Your task to perform on an android device: refresh tabs in the chrome app Image 0: 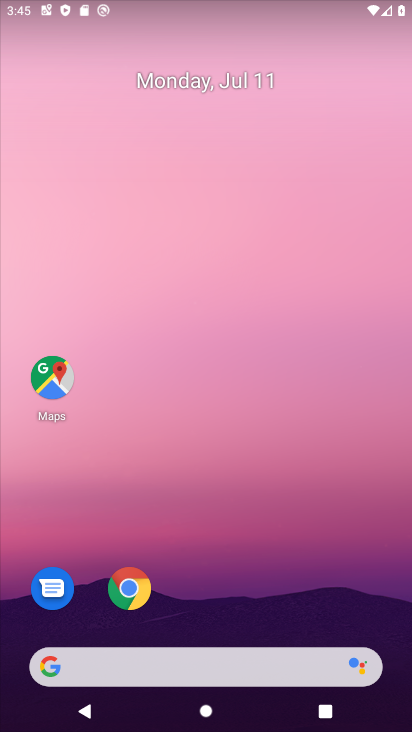
Step 0: press home button
Your task to perform on an android device: refresh tabs in the chrome app Image 1: 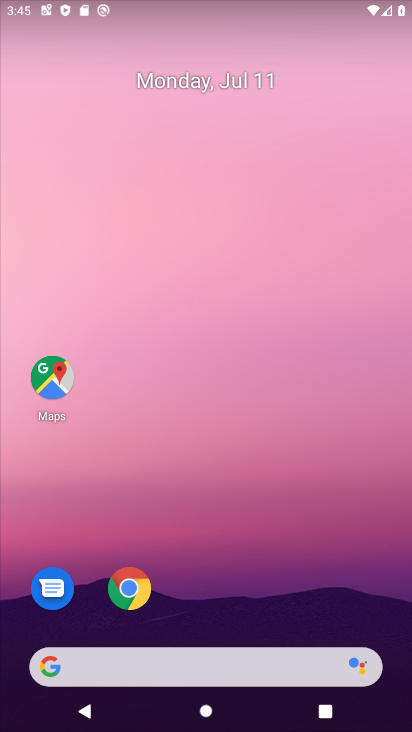
Step 1: click (139, 592)
Your task to perform on an android device: refresh tabs in the chrome app Image 2: 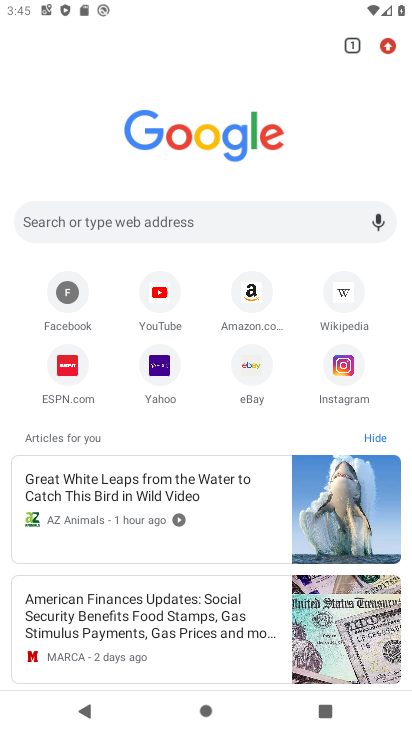
Step 2: click (386, 46)
Your task to perform on an android device: refresh tabs in the chrome app Image 3: 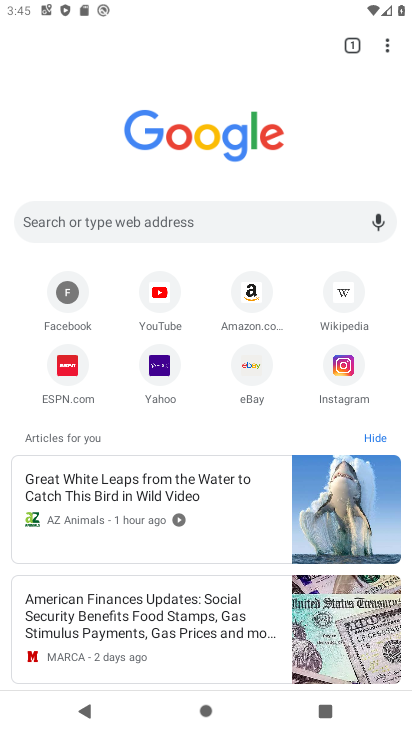
Step 3: click (387, 46)
Your task to perform on an android device: refresh tabs in the chrome app Image 4: 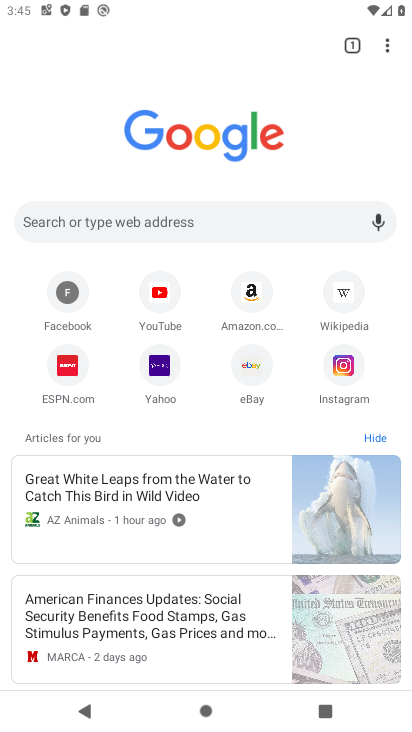
Step 4: click (387, 46)
Your task to perform on an android device: refresh tabs in the chrome app Image 5: 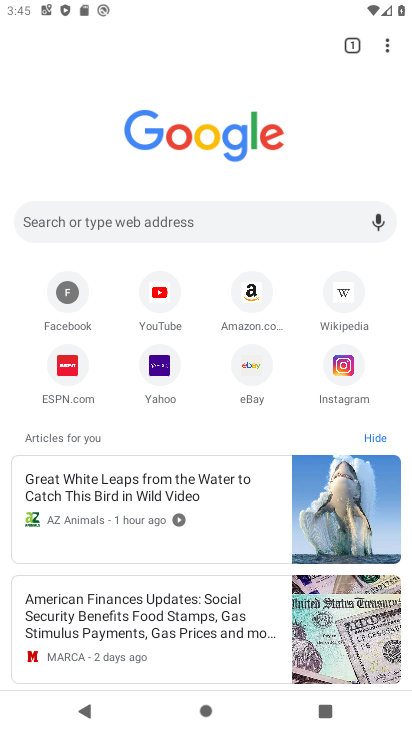
Step 5: click (387, 46)
Your task to perform on an android device: refresh tabs in the chrome app Image 6: 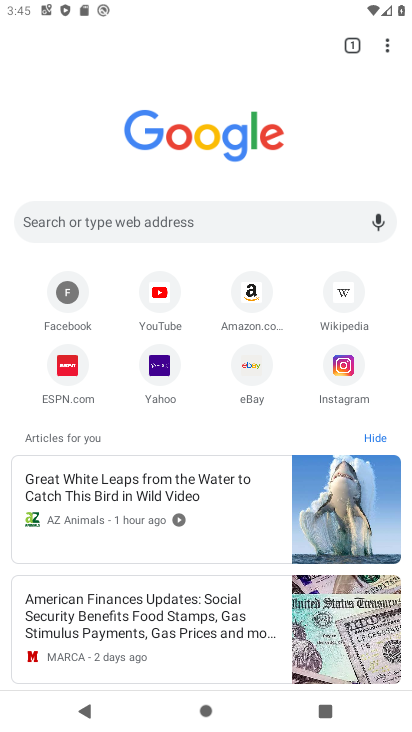
Step 6: click (385, 41)
Your task to perform on an android device: refresh tabs in the chrome app Image 7: 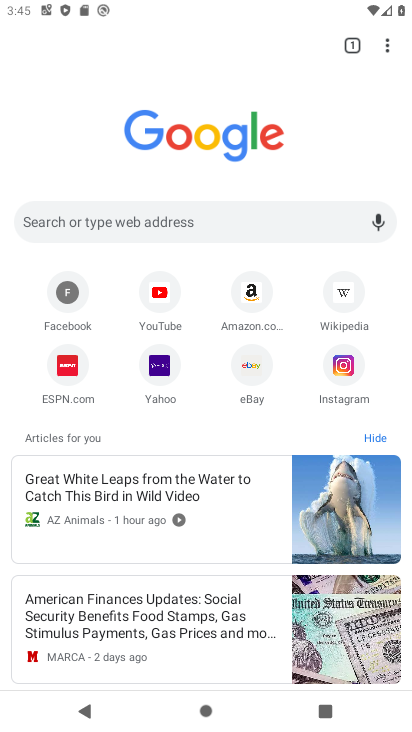
Step 7: click (387, 43)
Your task to perform on an android device: refresh tabs in the chrome app Image 8: 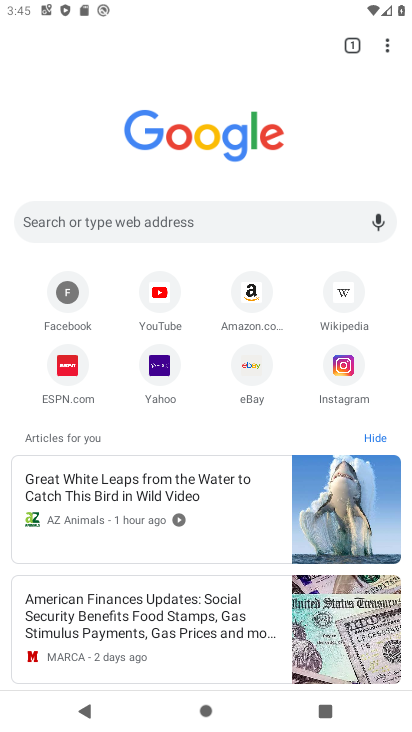
Step 8: task complete